Your task to perform on an android device: Open sound settings Image 0: 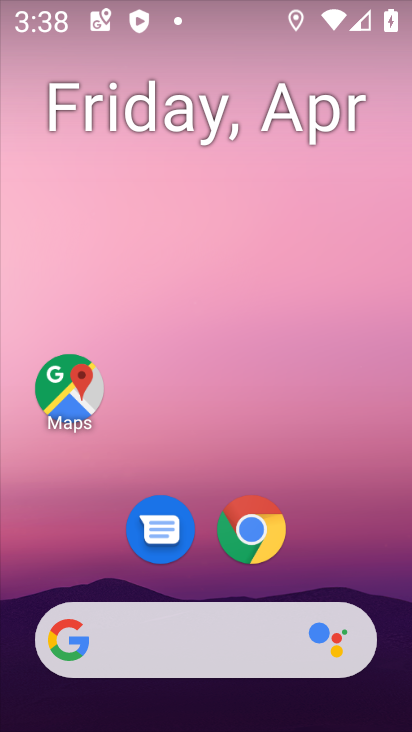
Step 0: drag from (313, 537) to (369, 80)
Your task to perform on an android device: Open sound settings Image 1: 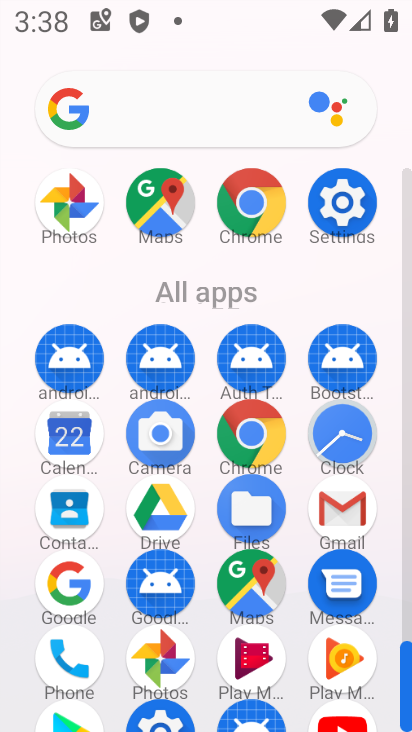
Step 1: click (339, 213)
Your task to perform on an android device: Open sound settings Image 2: 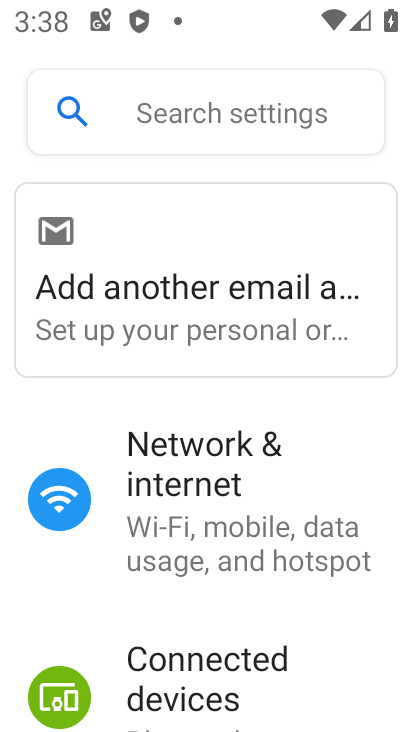
Step 2: drag from (269, 519) to (303, 274)
Your task to perform on an android device: Open sound settings Image 3: 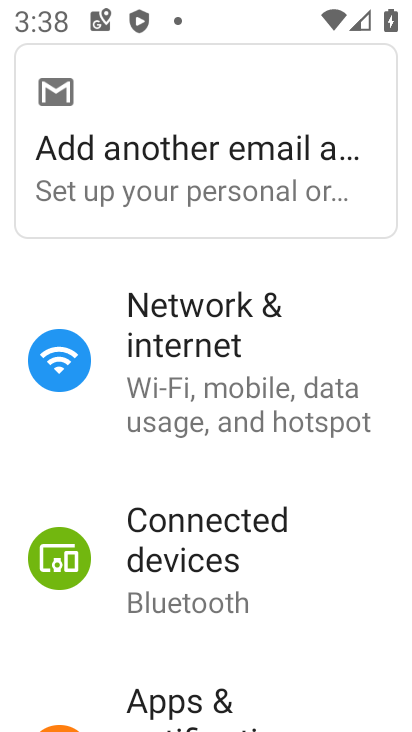
Step 3: drag from (301, 575) to (315, 249)
Your task to perform on an android device: Open sound settings Image 4: 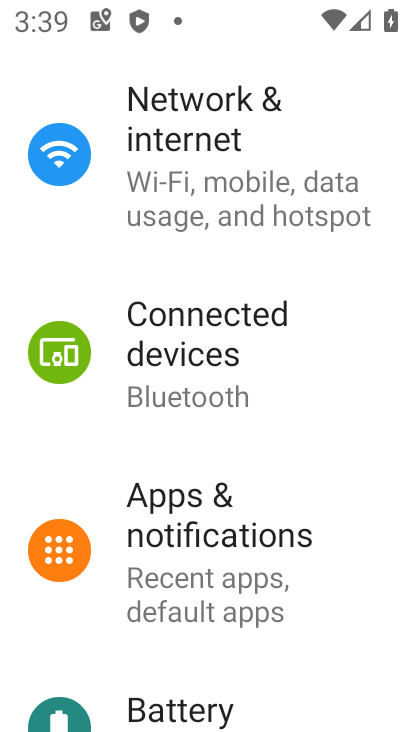
Step 4: drag from (276, 574) to (279, 312)
Your task to perform on an android device: Open sound settings Image 5: 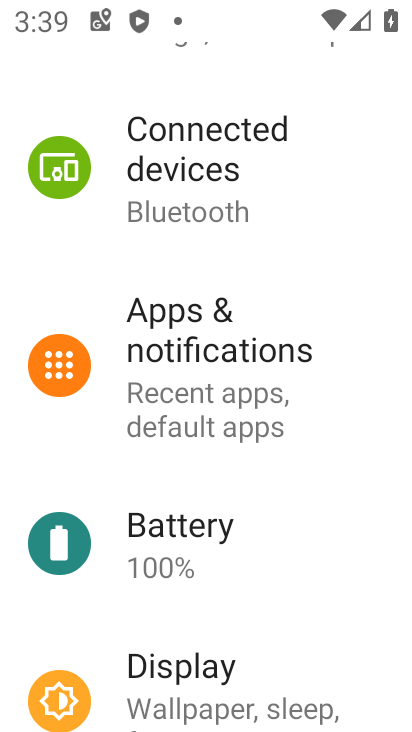
Step 5: drag from (263, 541) to (254, 351)
Your task to perform on an android device: Open sound settings Image 6: 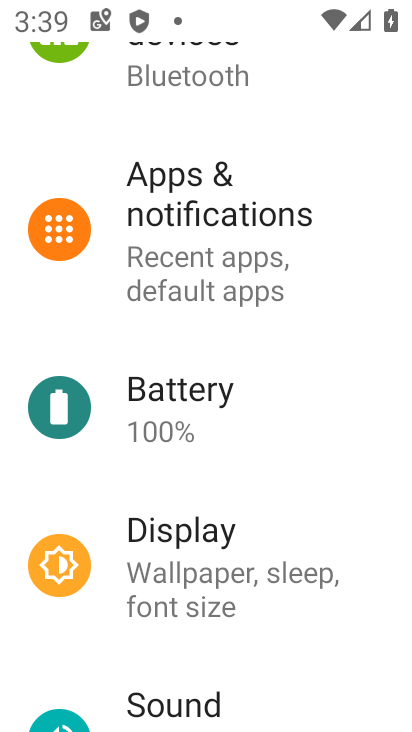
Step 6: drag from (231, 599) to (270, 386)
Your task to perform on an android device: Open sound settings Image 7: 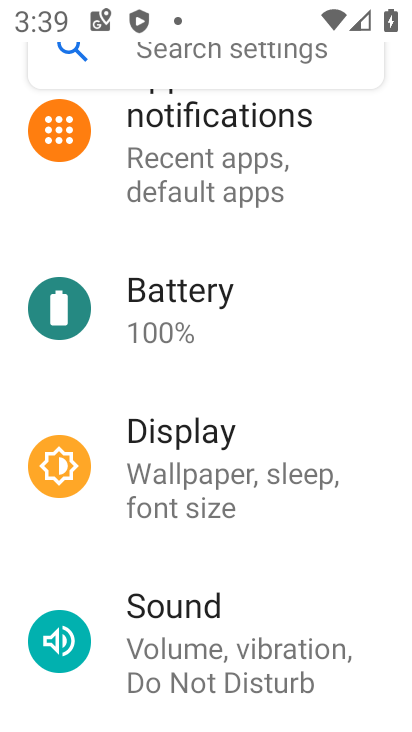
Step 7: drag from (231, 533) to (324, 151)
Your task to perform on an android device: Open sound settings Image 8: 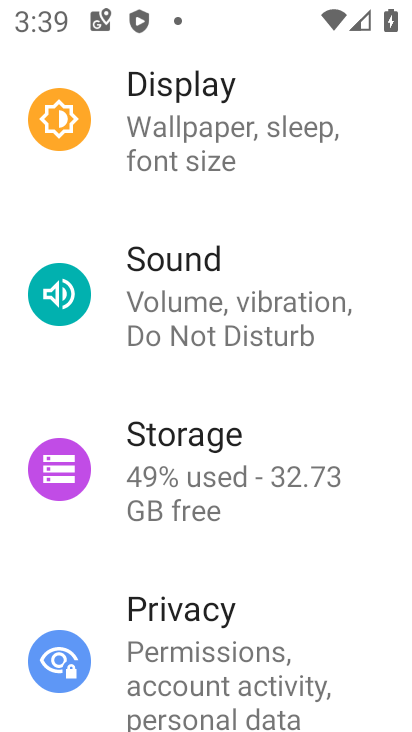
Step 8: click (224, 336)
Your task to perform on an android device: Open sound settings Image 9: 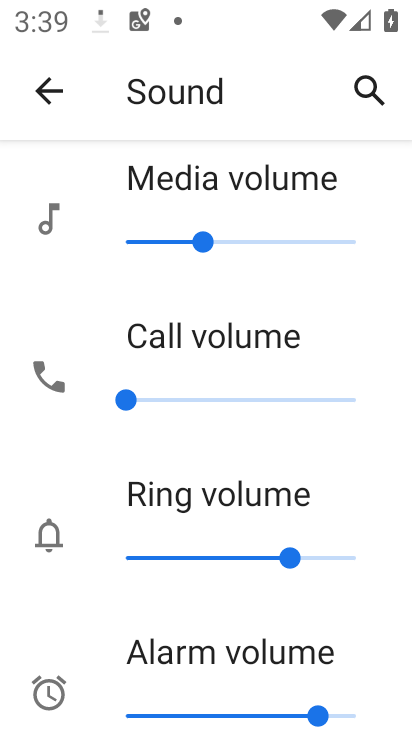
Step 9: task complete